Your task to perform on an android device: Open Google Chrome and open the bookmarks view Image 0: 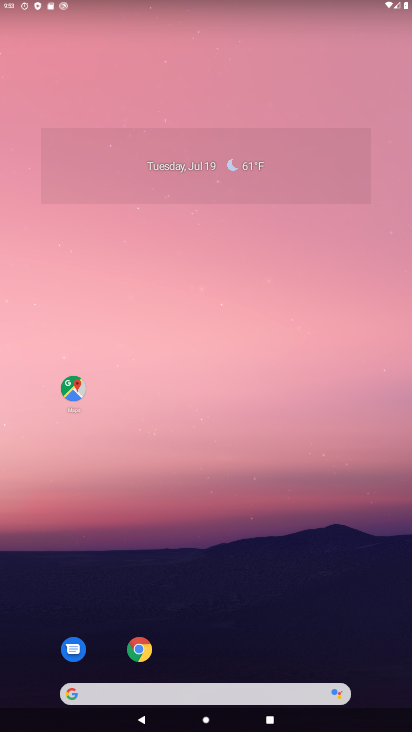
Step 0: click (143, 651)
Your task to perform on an android device: Open Google Chrome and open the bookmarks view Image 1: 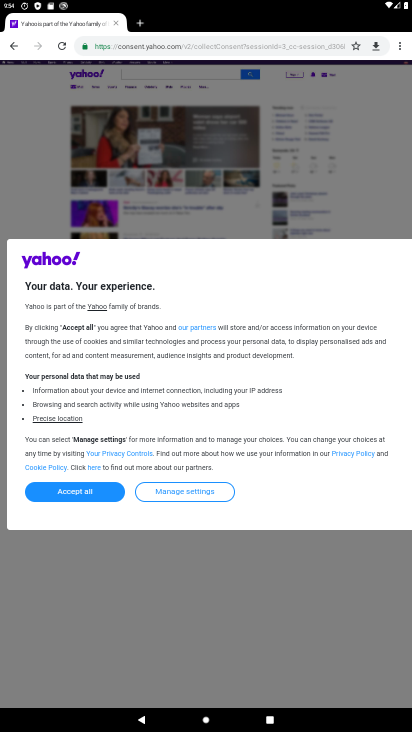
Step 1: click (401, 47)
Your task to perform on an android device: Open Google Chrome and open the bookmarks view Image 2: 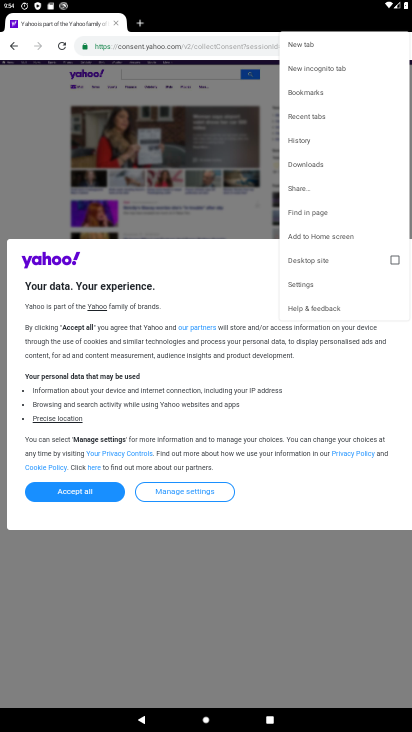
Step 2: click (318, 86)
Your task to perform on an android device: Open Google Chrome and open the bookmarks view Image 3: 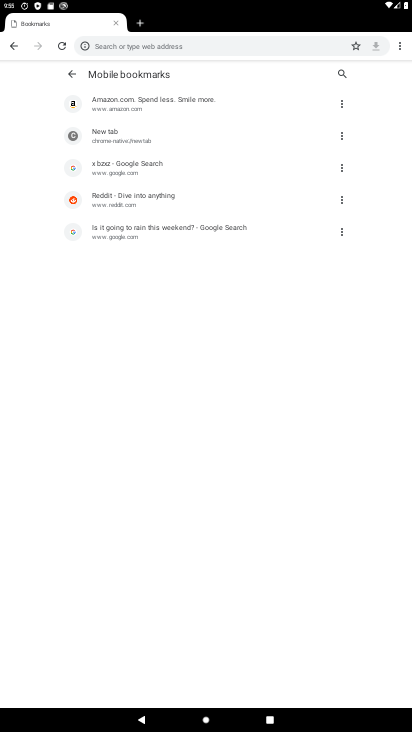
Step 3: task complete